Your task to perform on an android device: Clear the cart on bestbuy.com. Add razer blade to the cart on bestbuy.com Image 0: 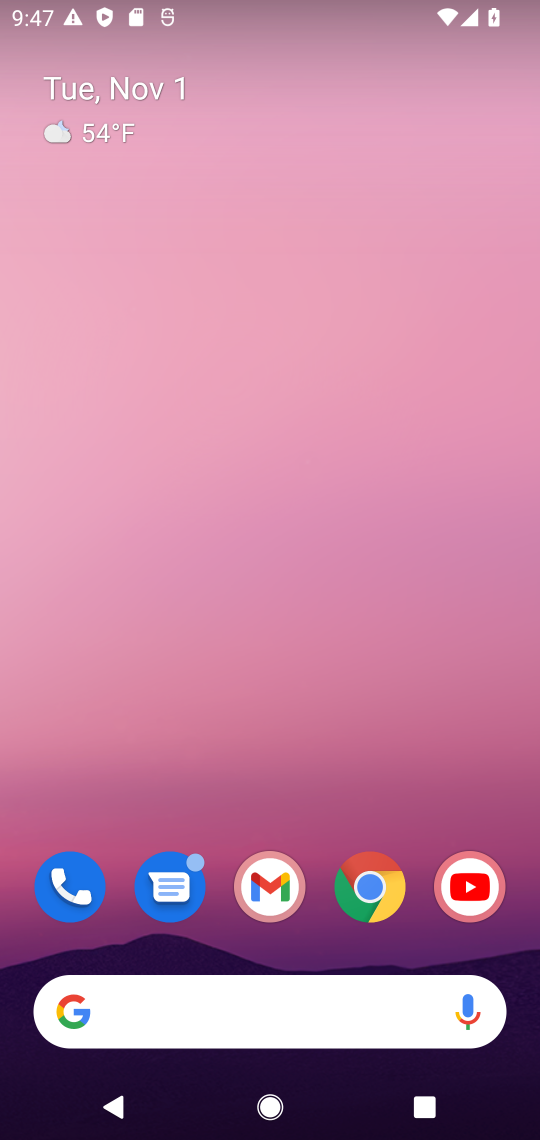
Step 0: drag from (216, 932) to (332, 253)
Your task to perform on an android device: Clear the cart on bestbuy.com. Add razer blade to the cart on bestbuy.com Image 1: 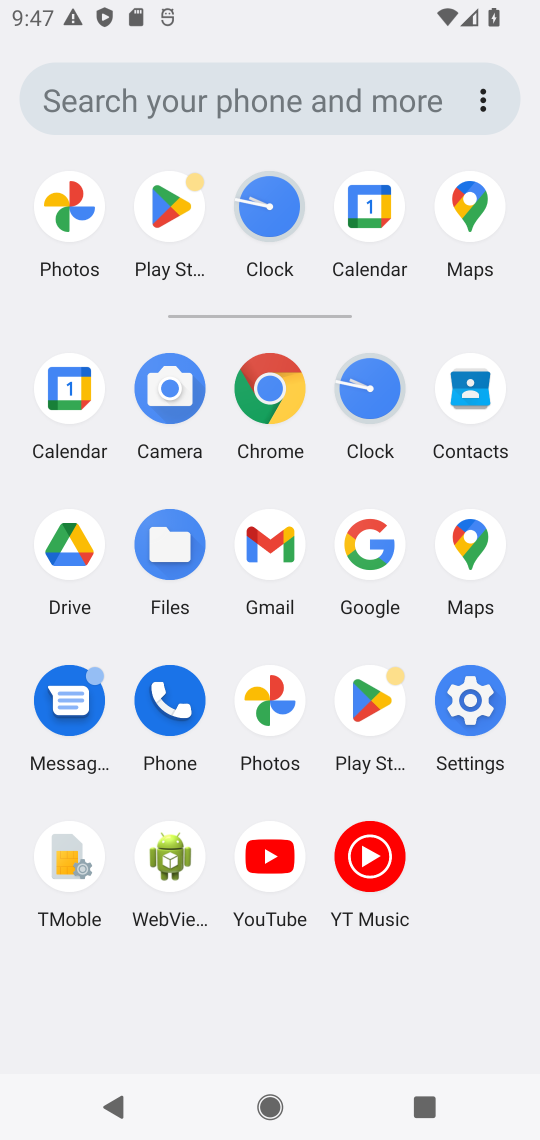
Step 1: click (366, 541)
Your task to perform on an android device: Clear the cart on bestbuy.com. Add razer blade to the cart on bestbuy.com Image 2: 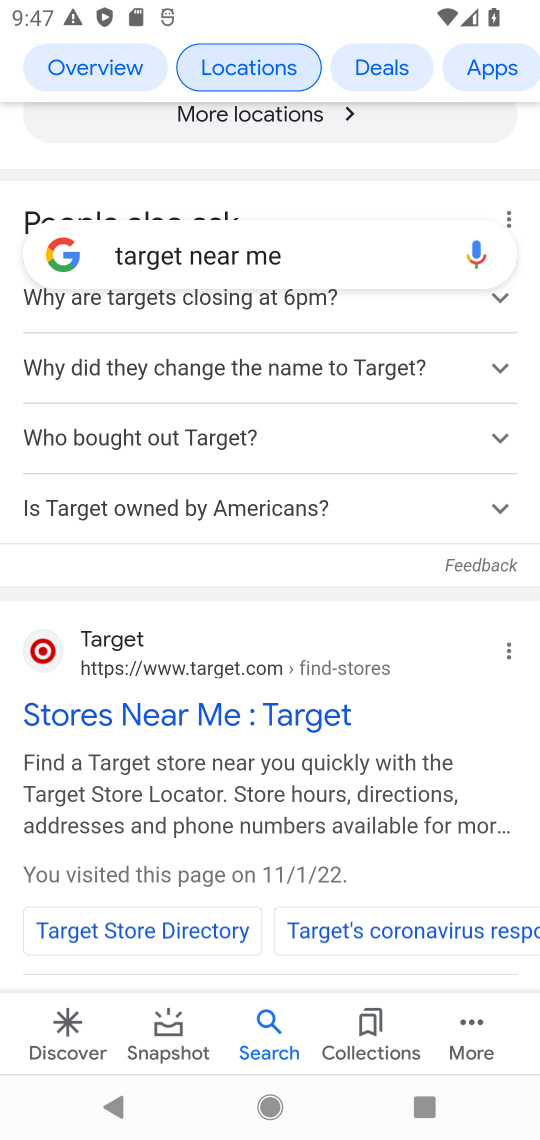
Step 2: click (233, 231)
Your task to perform on an android device: Clear the cart on bestbuy.com. Add razer blade to the cart on bestbuy.com Image 3: 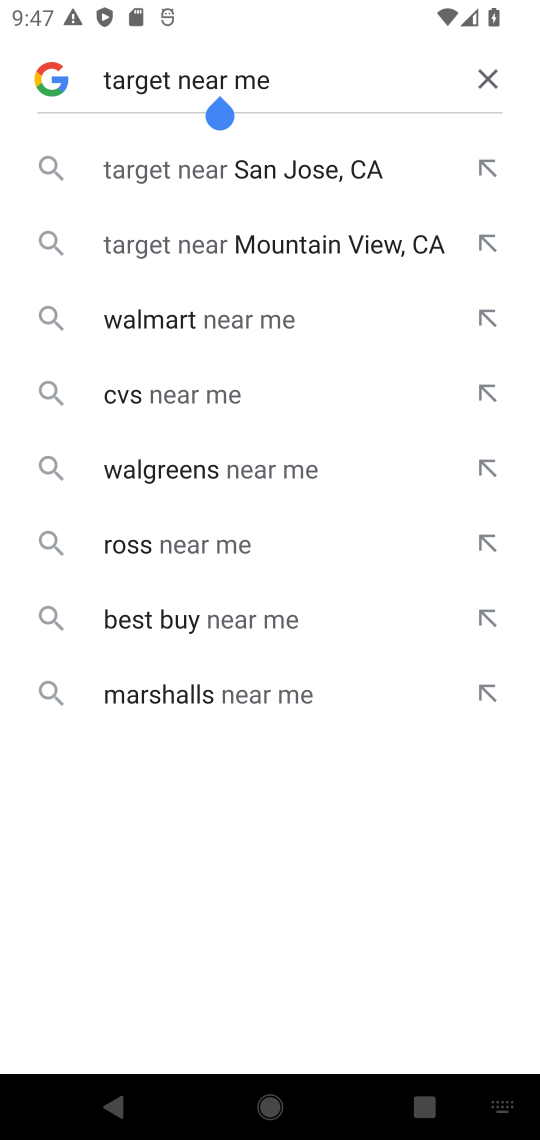
Step 3: click (481, 59)
Your task to perform on an android device: Clear the cart on bestbuy.com. Add razer blade to the cart on bestbuy.com Image 4: 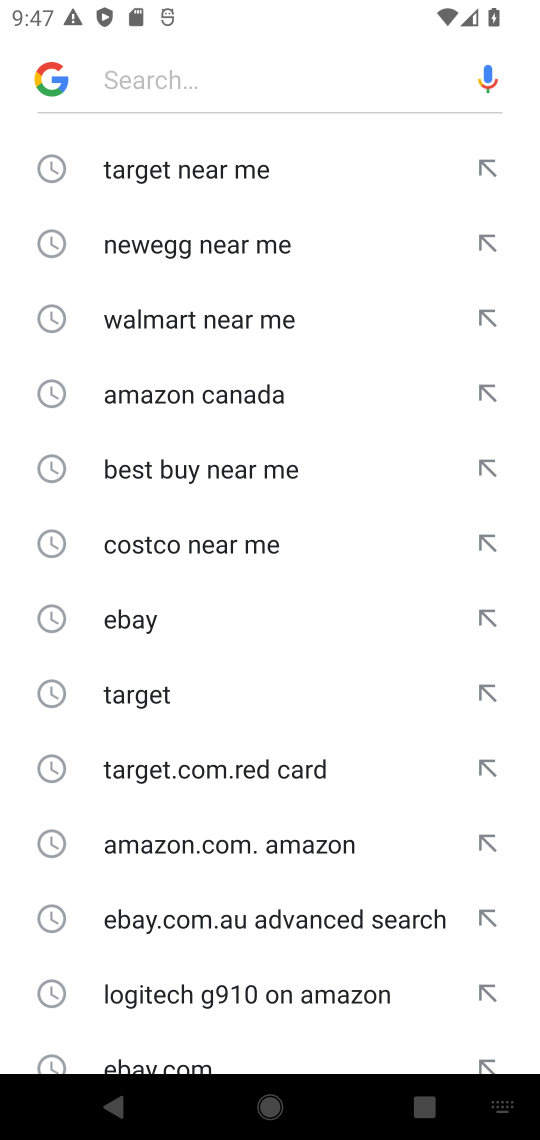
Step 4: click (268, 64)
Your task to perform on an android device: Clear the cart on bestbuy.com. Add razer blade to the cart on bestbuy.com Image 5: 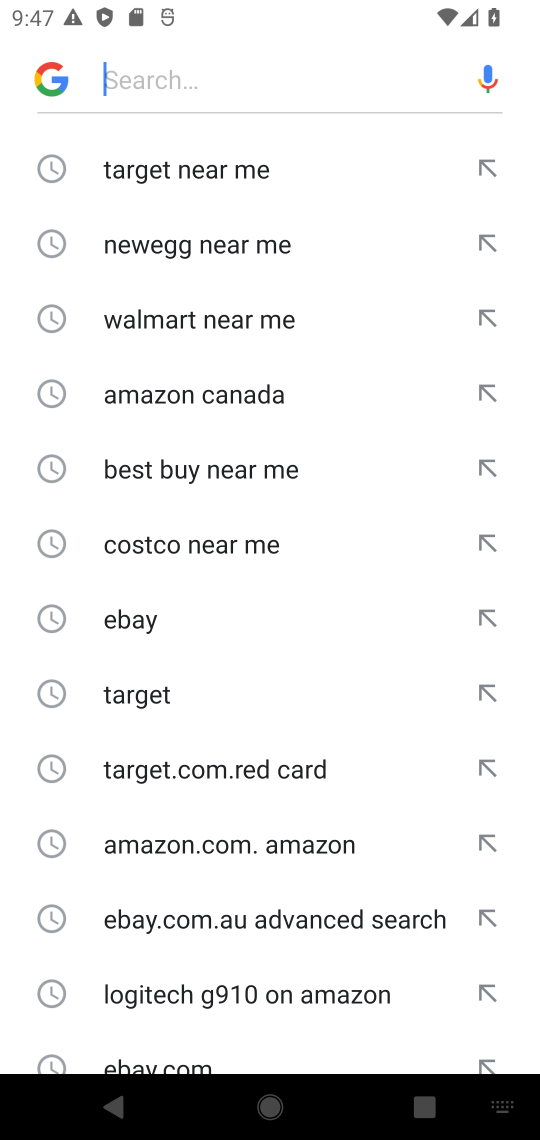
Step 5: type "bestbuy "
Your task to perform on an android device: Clear the cart on bestbuy.com. Add razer blade to the cart on bestbuy.com Image 6: 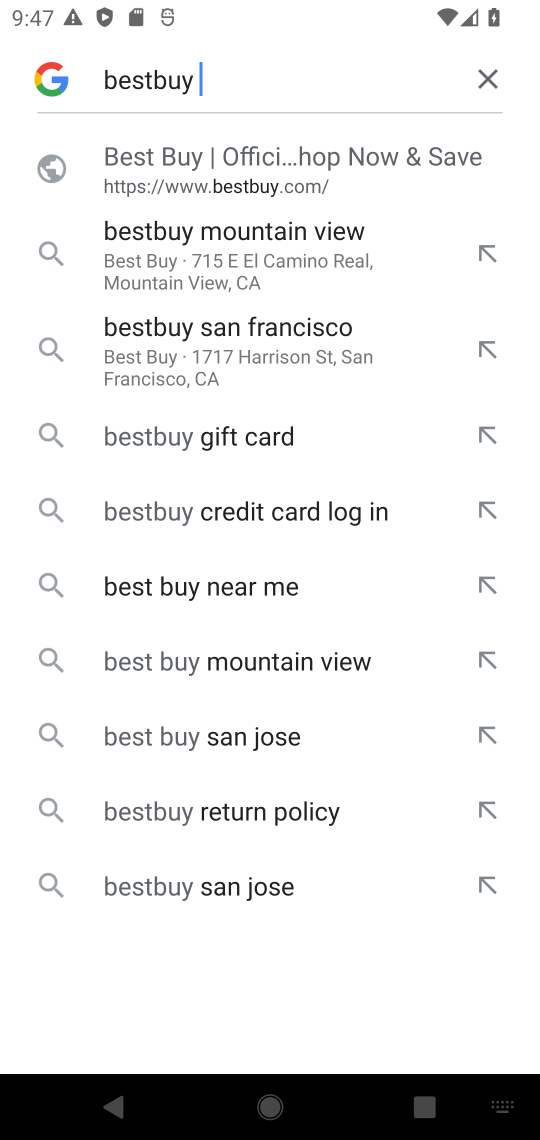
Step 6: click (167, 139)
Your task to perform on an android device: Clear the cart on bestbuy.com. Add razer blade to the cart on bestbuy.com Image 7: 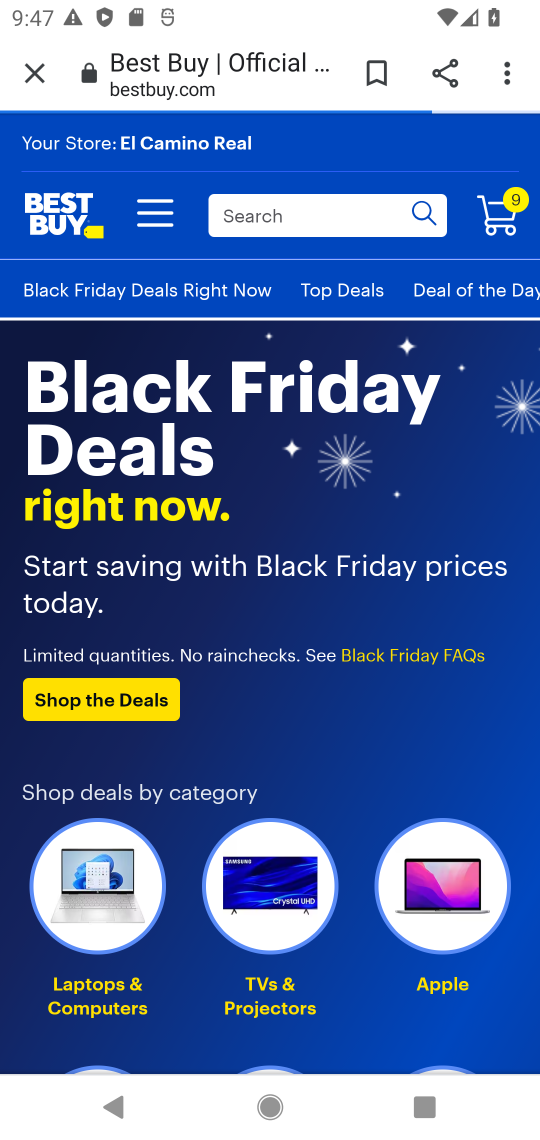
Step 7: click (307, 196)
Your task to perform on an android device: Clear the cart on bestbuy.com. Add razer blade to the cart on bestbuy.com Image 8: 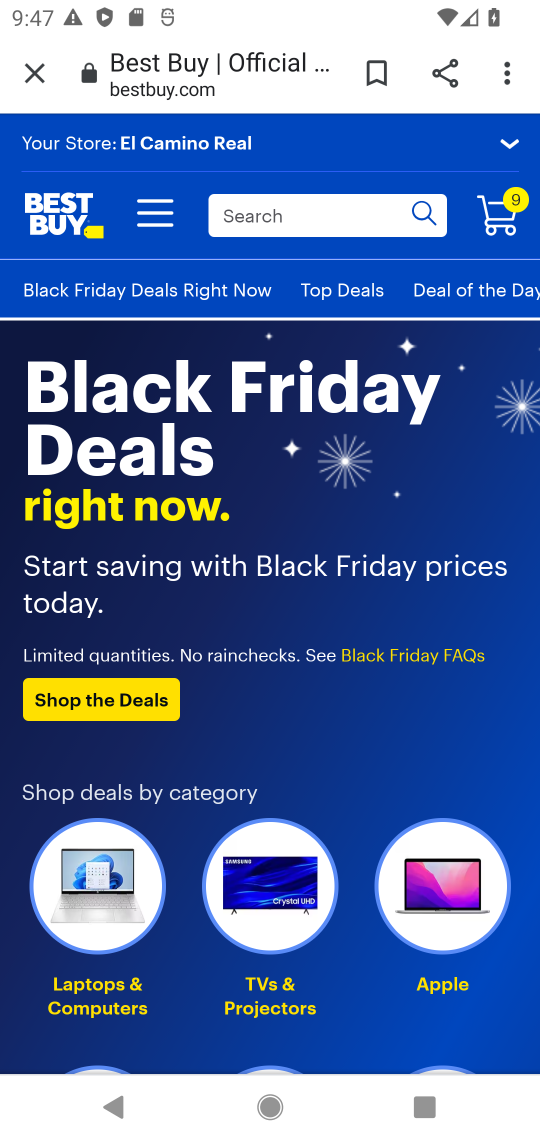
Step 8: click (309, 205)
Your task to perform on an android device: Clear the cart on bestbuy.com. Add razer blade to the cart on bestbuy.com Image 9: 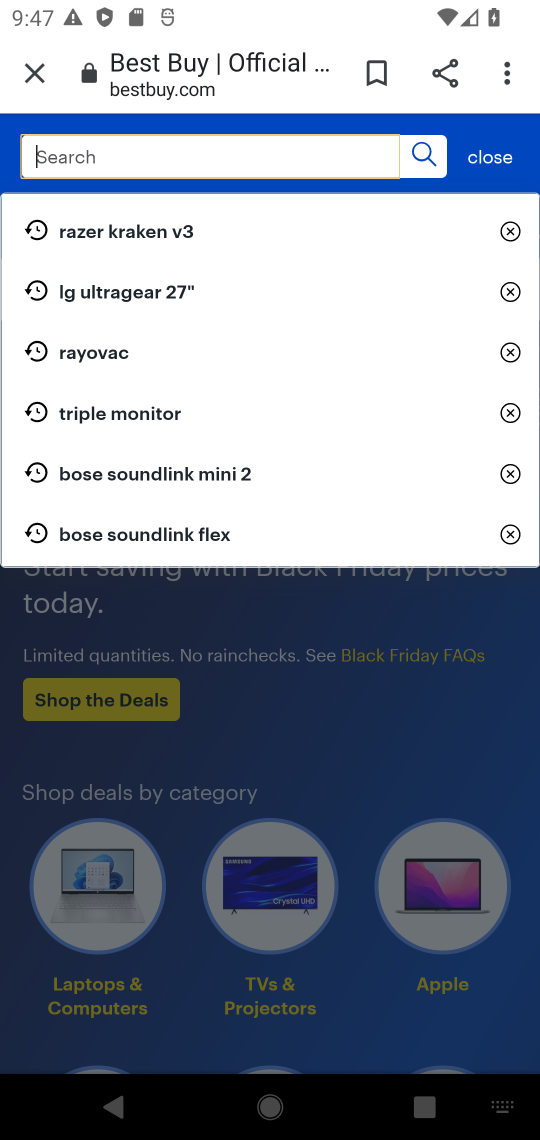
Step 9: type " razer blade  "
Your task to perform on an android device: Clear the cart on bestbuy.com. Add razer blade to the cart on bestbuy.com Image 10: 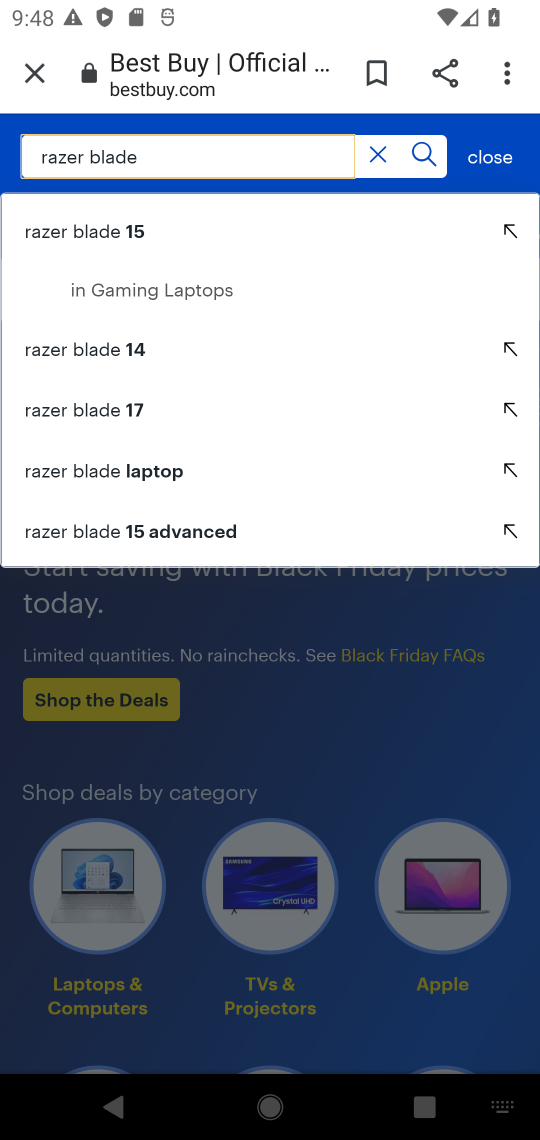
Step 10: click (26, 233)
Your task to perform on an android device: Clear the cart on bestbuy.com. Add razer blade to the cart on bestbuy.com Image 11: 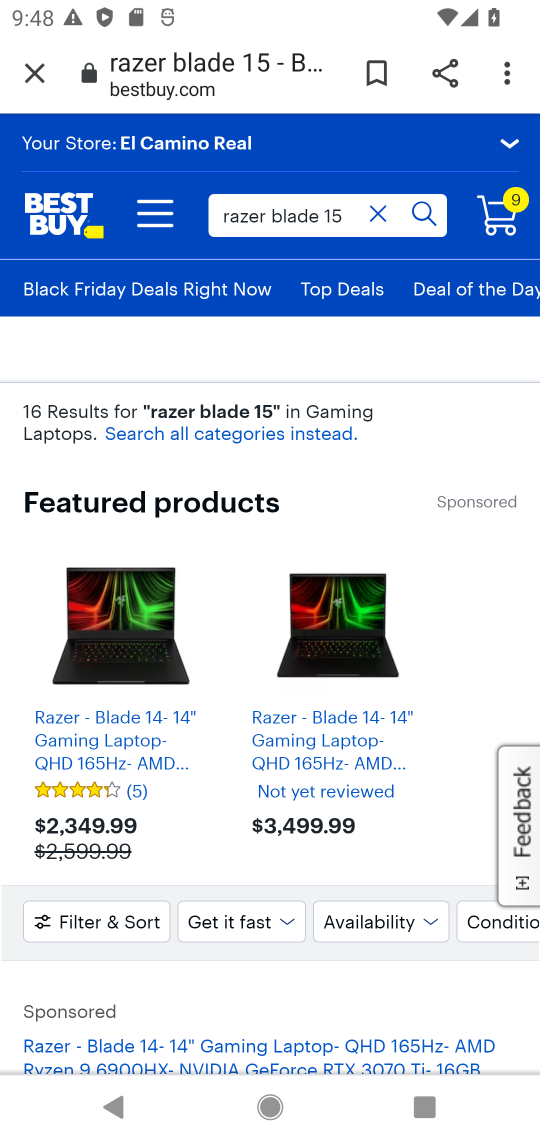
Step 11: click (127, 656)
Your task to perform on an android device: Clear the cart on bestbuy.com. Add razer blade to the cart on bestbuy.com Image 12: 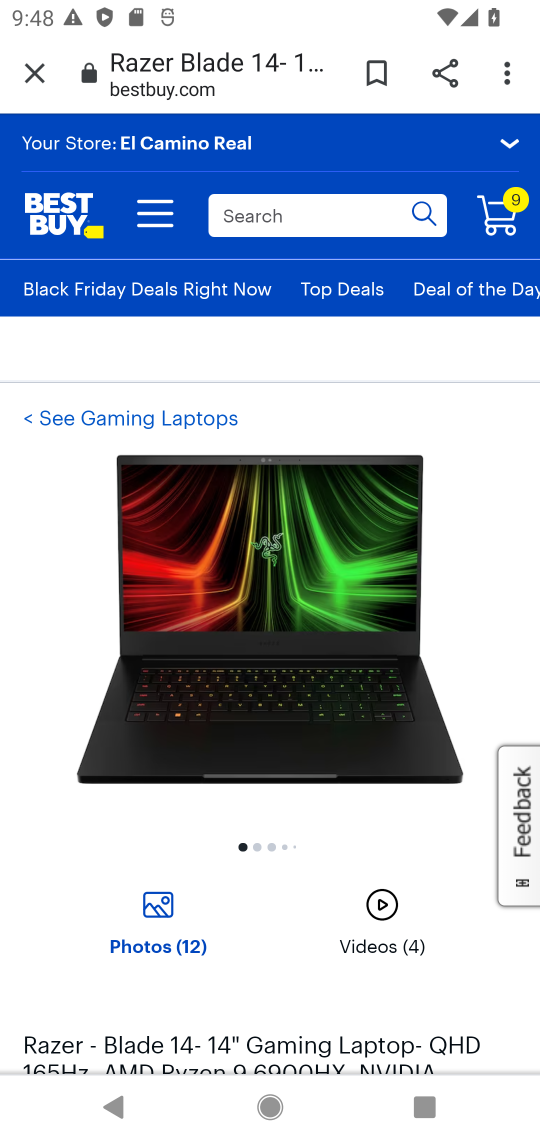
Step 12: drag from (282, 932) to (333, 459)
Your task to perform on an android device: Clear the cart on bestbuy.com. Add razer blade to the cart on bestbuy.com Image 13: 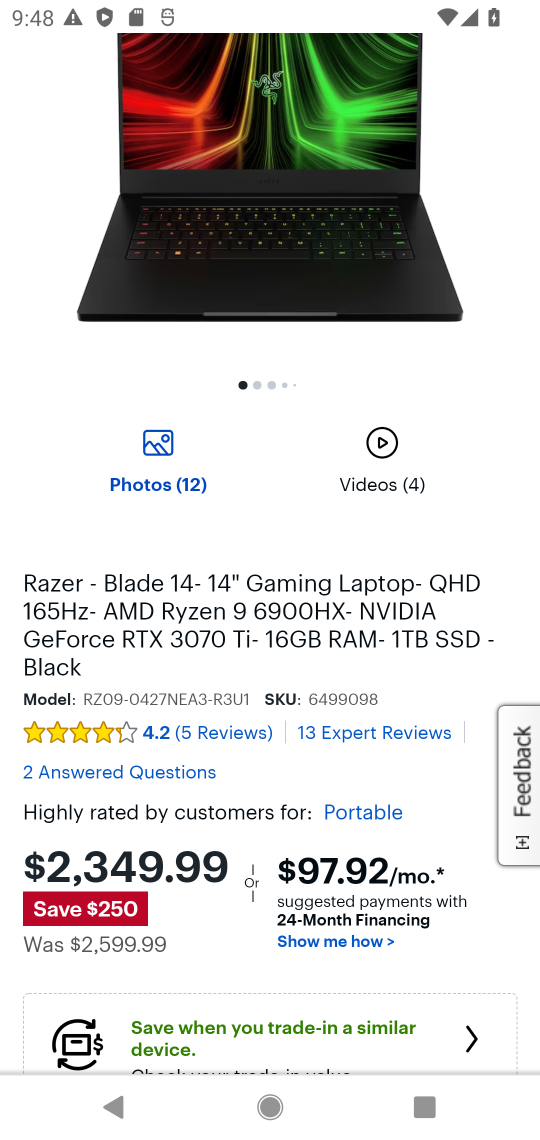
Step 13: drag from (383, 837) to (449, 351)
Your task to perform on an android device: Clear the cart on bestbuy.com. Add razer blade to the cart on bestbuy.com Image 14: 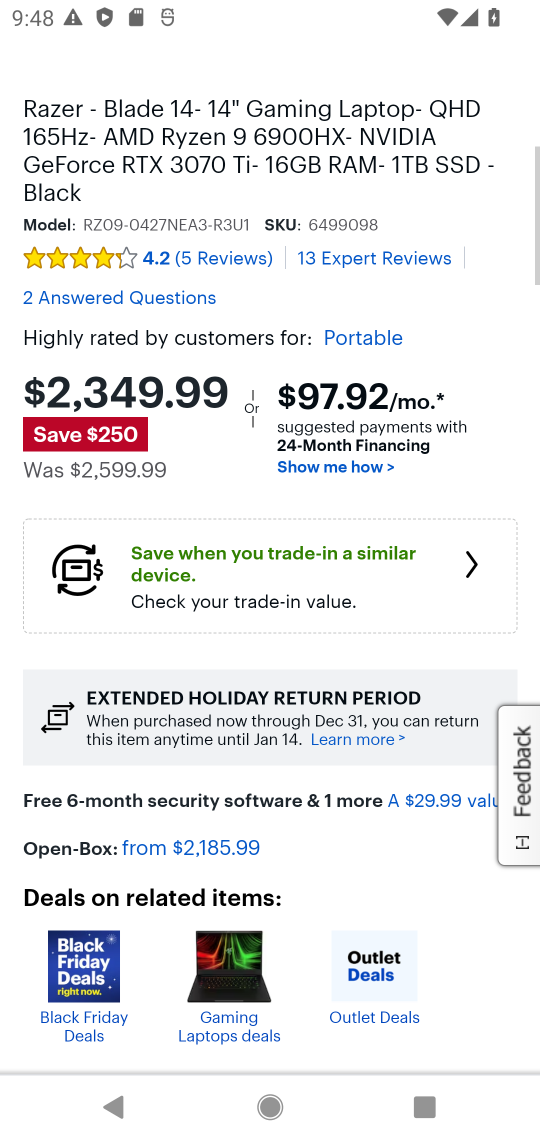
Step 14: drag from (384, 940) to (380, 342)
Your task to perform on an android device: Clear the cart on bestbuy.com. Add razer blade to the cart on bestbuy.com Image 15: 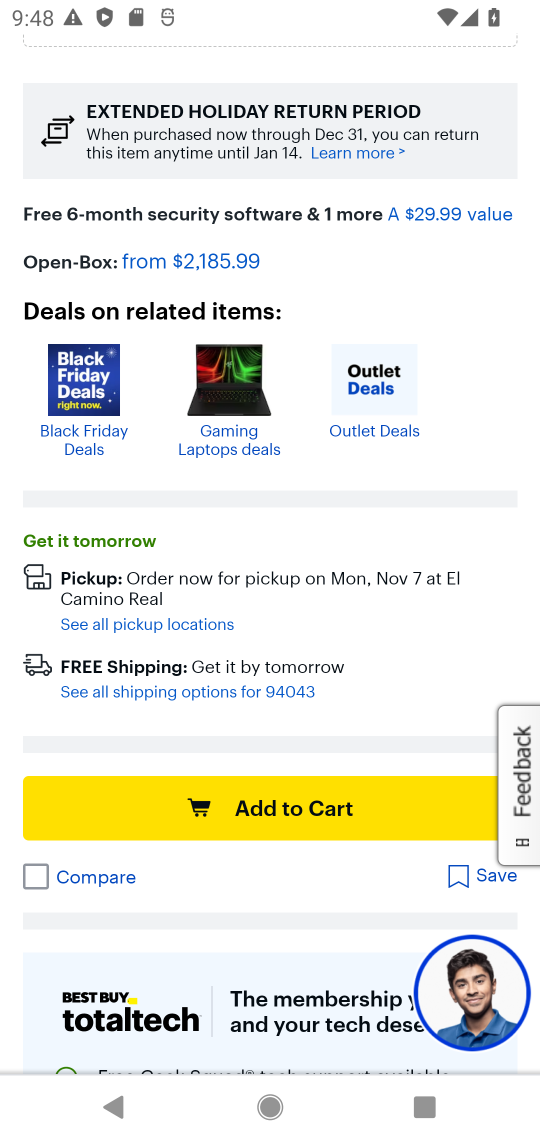
Step 15: drag from (277, 795) to (293, 500)
Your task to perform on an android device: Clear the cart on bestbuy.com. Add razer blade to the cart on bestbuy.com Image 16: 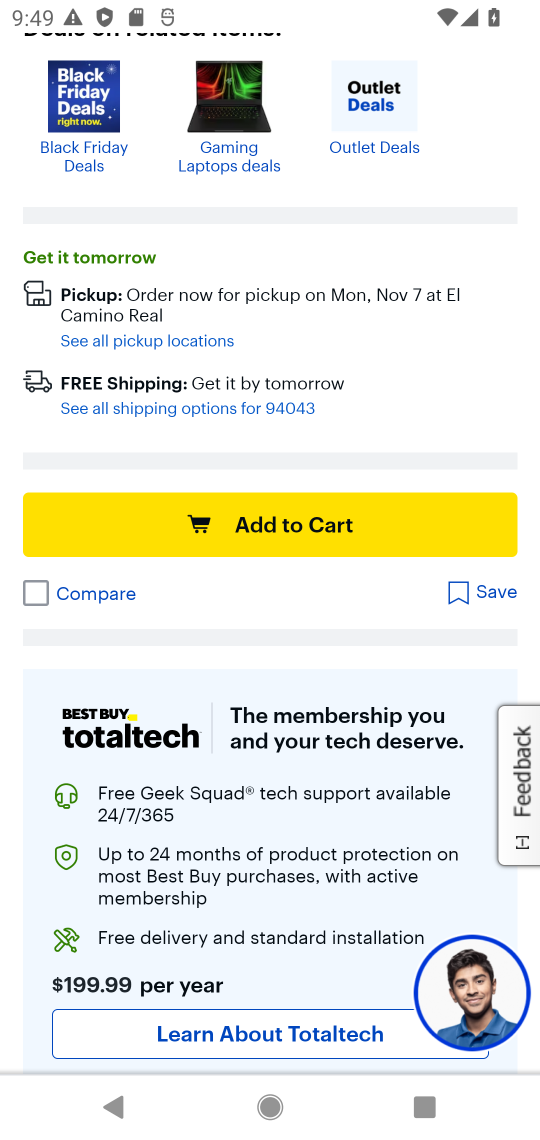
Step 16: click (283, 510)
Your task to perform on an android device: Clear the cart on bestbuy.com. Add razer blade to the cart on bestbuy.com Image 17: 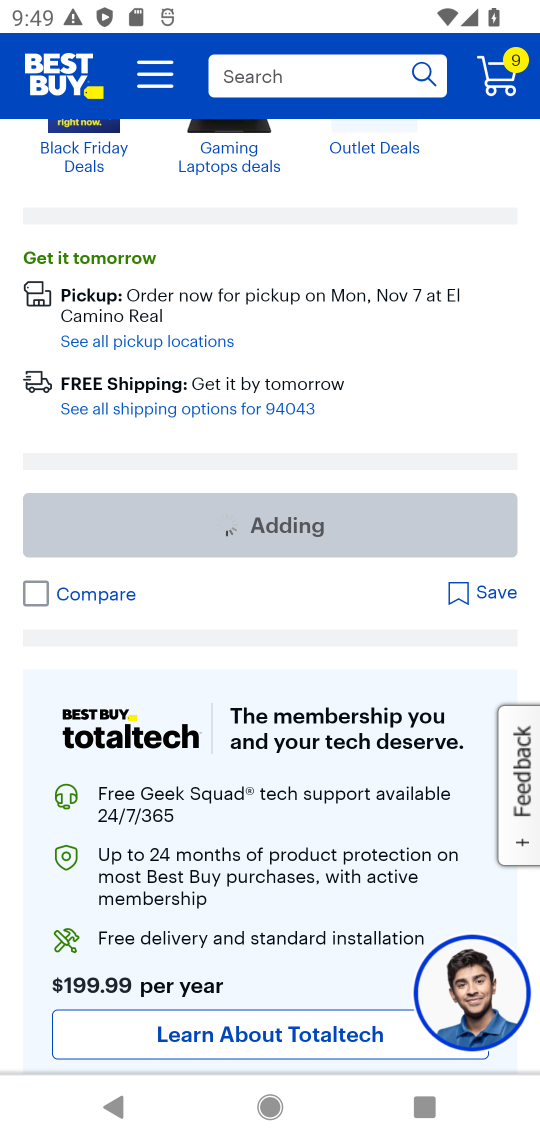
Step 17: task complete